Your task to perform on an android device: find snoozed emails in the gmail app Image 0: 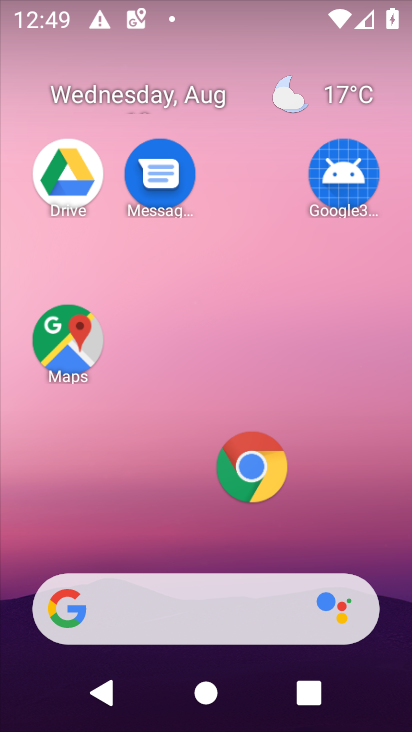
Step 0: drag from (156, 547) to (225, 247)
Your task to perform on an android device: find snoozed emails in the gmail app Image 1: 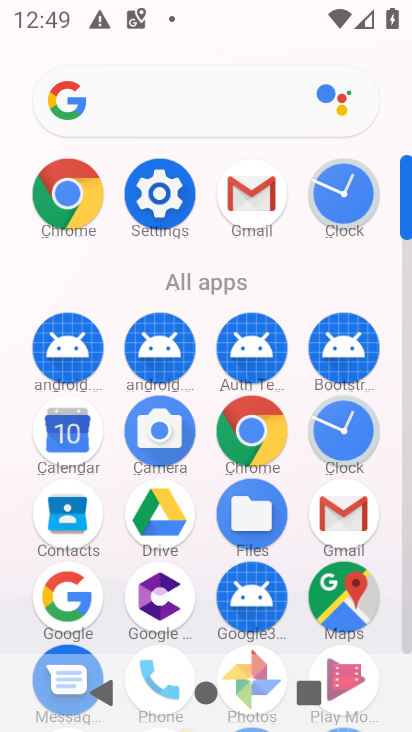
Step 1: click (260, 205)
Your task to perform on an android device: find snoozed emails in the gmail app Image 2: 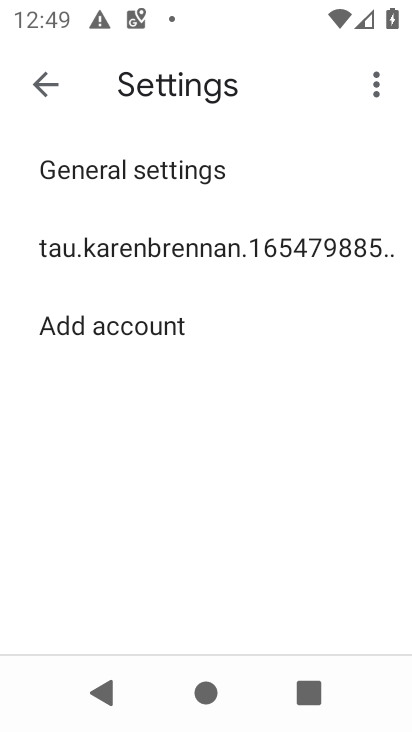
Step 2: click (117, 275)
Your task to perform on an android device: find snoozed emails in the gmail app Image 3: 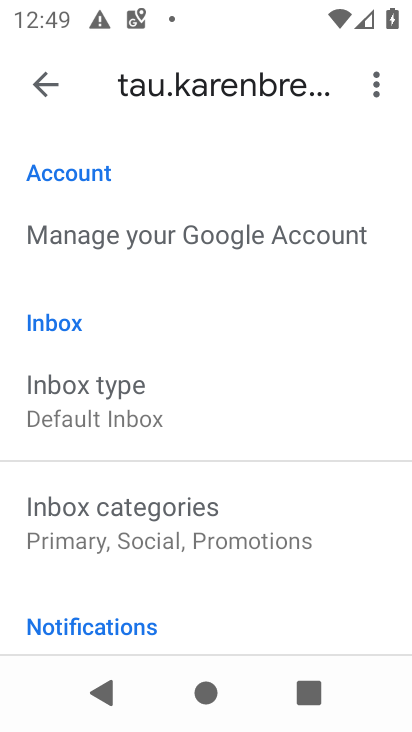
Step 3: drag from (224, 625) to (258, 307)
Your task to perform on an android device: find snoozed emails in the gmail app Image 4: 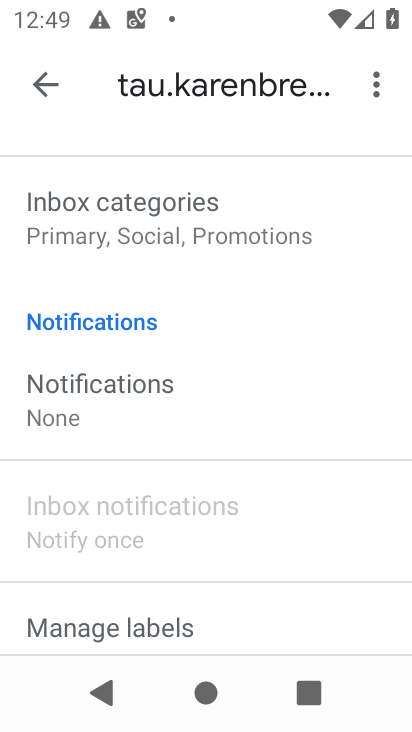
Step 4: drag from (273, 609) to (307, 394)
Your task to perform on an android device: find snoozed emails in the gmail app Image 5: 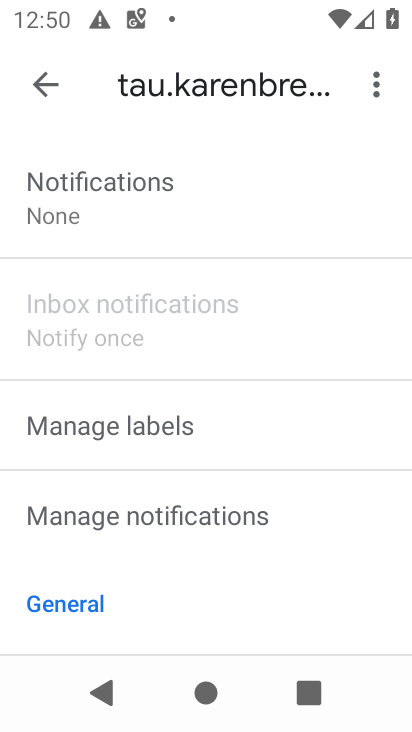
Step 5: drag from (210, 621) to (310, 220)
Your task to perform on an android device: find snoozed emails in the gmail app Image 6: 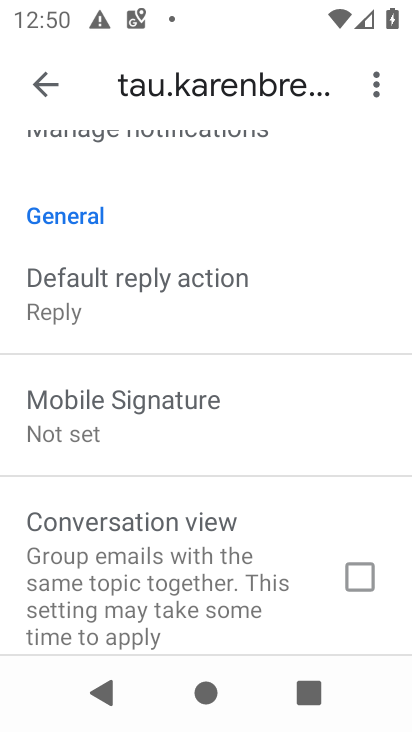
Step 6: drag from (165, 583) to (100, 104)
Your task to perform on an android device: find snoozed emails in the gmail app Image 7: 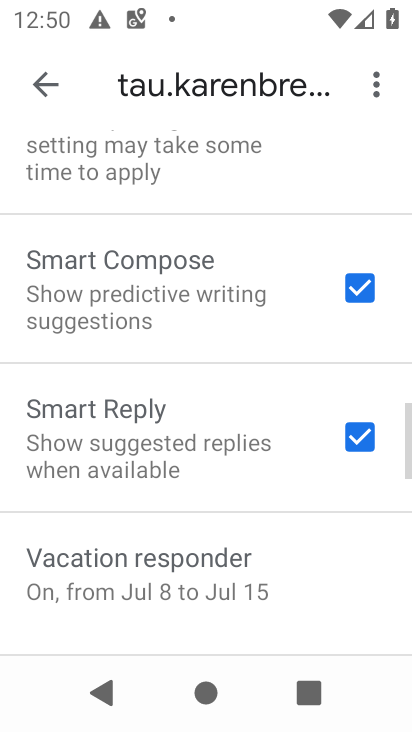
Step 7: click (38, 67)
Your task to perform on an android device: find snoozed emails in the gmail app Image 8: 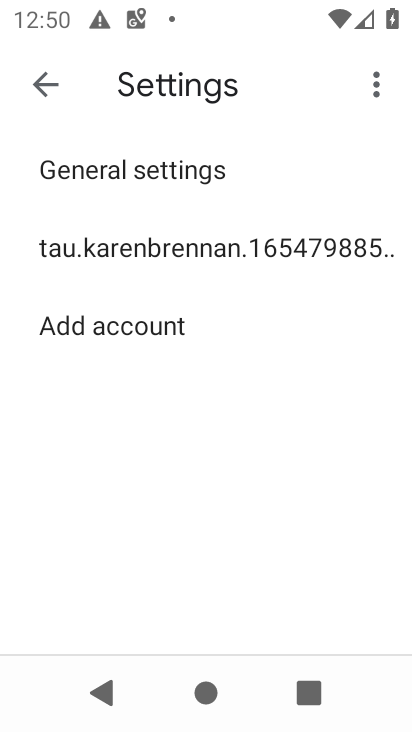
Step 8: click (51, 89)
Your task to perform on an android device: find snoozed emails in the gmail app Image 9: 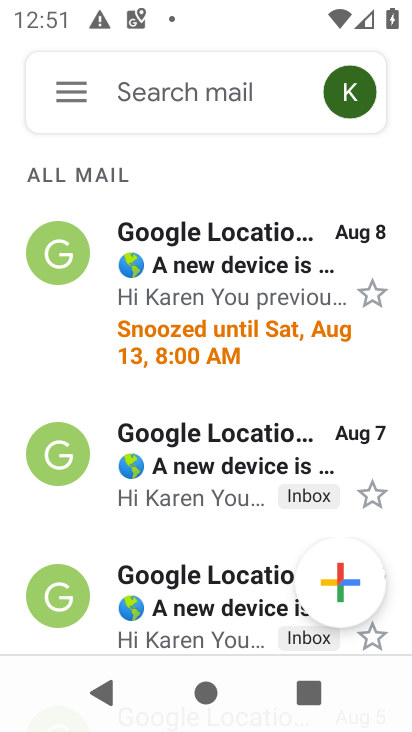
Step 9: click (62, 74)
Your task to perform on an android device: find snoozed emails in the gmail app Image 10: 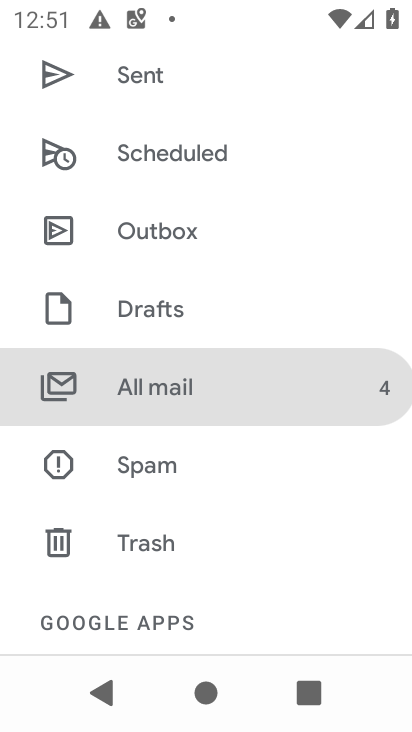
Step 10: drag from (281, 122) to (189, 593)
Your task to perform on an android device: find snoozed emails in the gmail app Image 11: 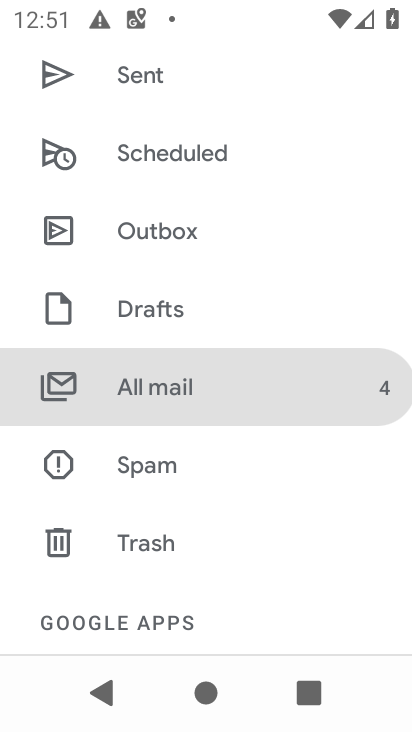
Step 11: drag from (320, 556) to (373, 96)
Your task to perform on an android device: find snoozed emails in the gmail app Image 12: 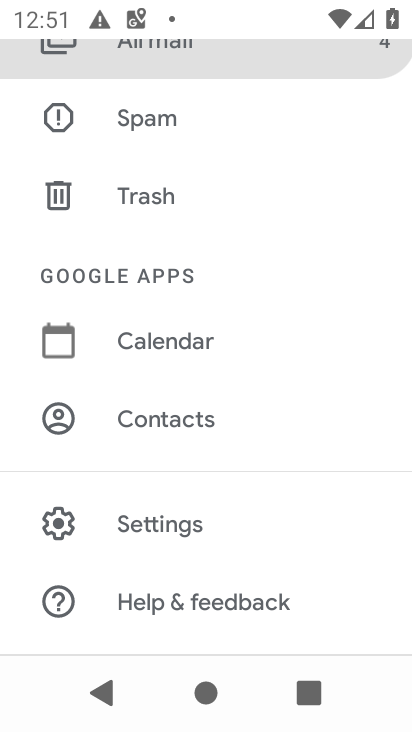
Step 12: drag from (278, 180) to (275, 683)
Your task to perform on an android device: find snoozed emails in the gmail app Image 13: 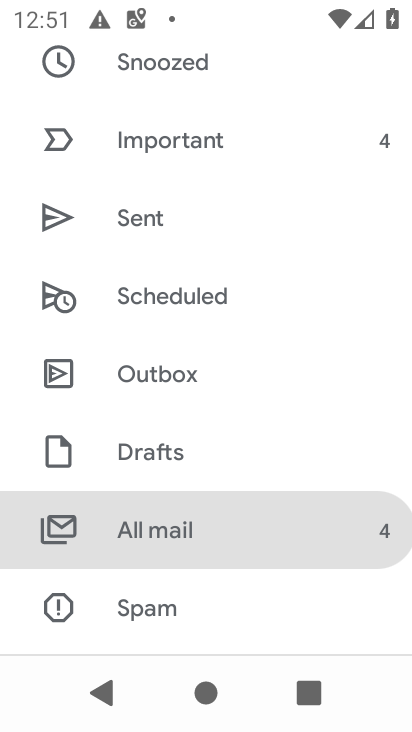
Step 13: click (203, 73)
Your task to perform on an android device: find snoozed emails in the gmail app Image 14: 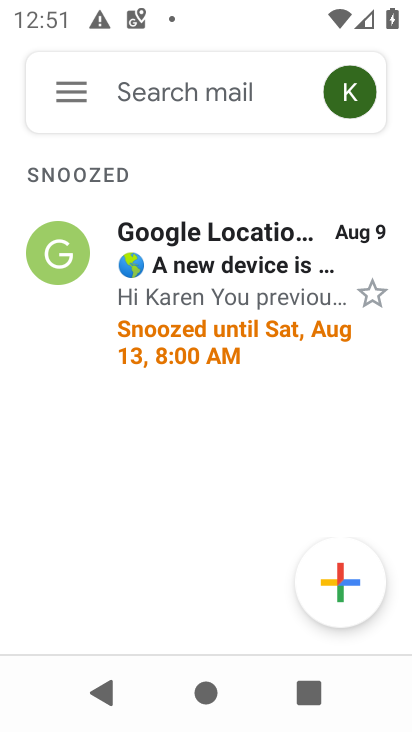
Step 14: task complete